Your task to perform on an android device: Go to eBay Image 0: 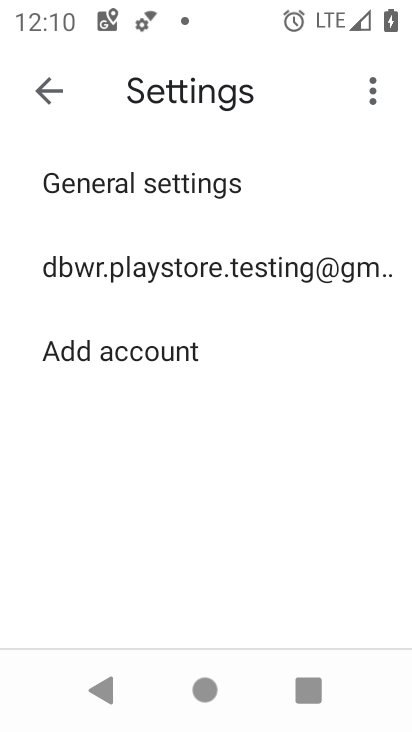
Step 0: press home button
Your task to perform on an android device: Go to eBay Image 1: 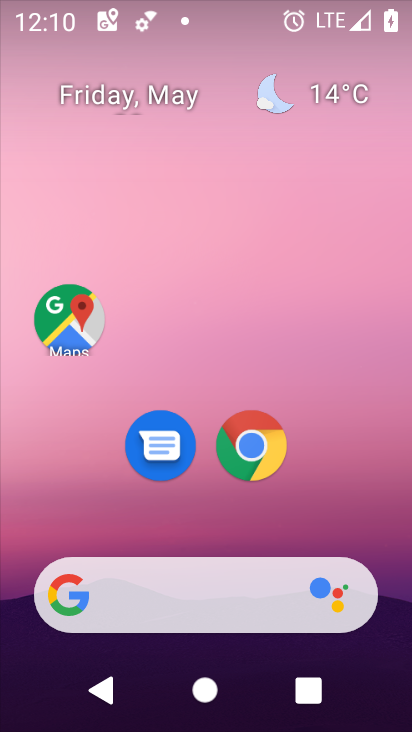
Step 1: drag from (247, 520) to (227, 152)
Your task to perform on an android device: Go to eBay Image 2: 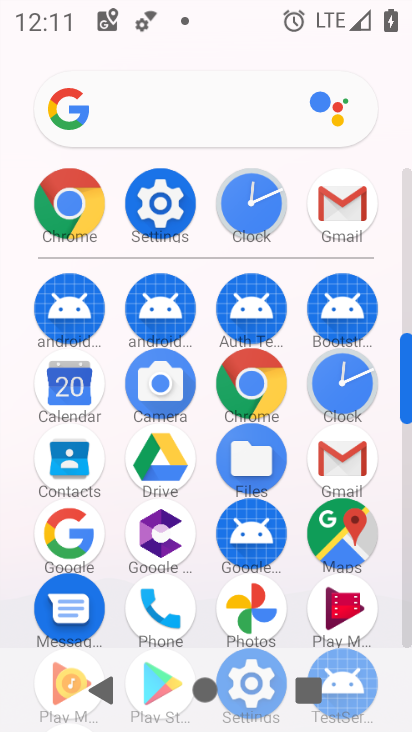
Step 2: click (84, 224)
Your task to perform on an android device: Go to eBay Image 3: 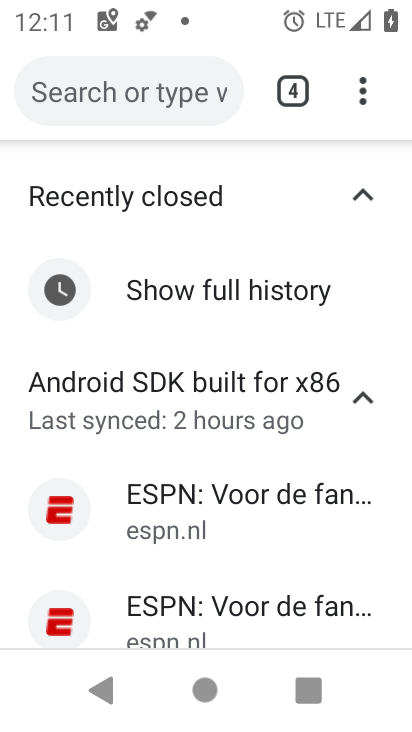
Step 3: click (293, 97)
Your task to perform on an android device: Go to eBay Image 4: 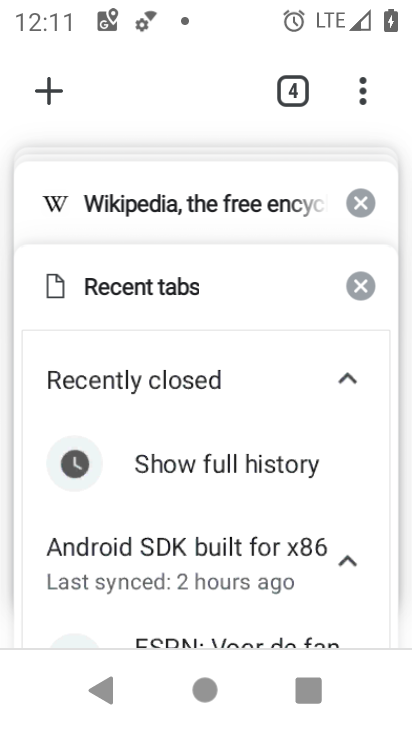
Step 4: drag from (137, 206) to (221, 615)
Your task to perform on an android device: Go to eBay Image 5: 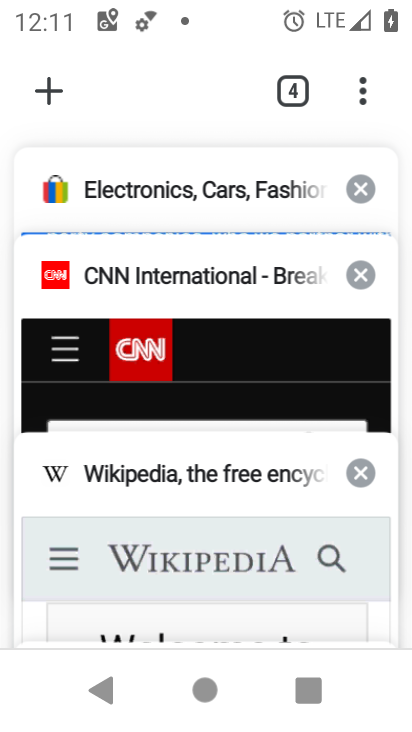
Step 5: drag from (190, 225) to (209, 573)
Your task to perform on an android device: Go to eBay Image 6: 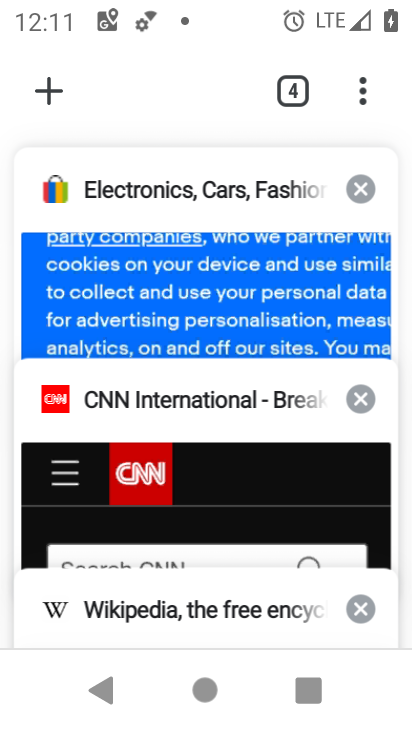
Step 6: click (221, 230)
Your task to perform on an android device: Go to eBay Image 7: 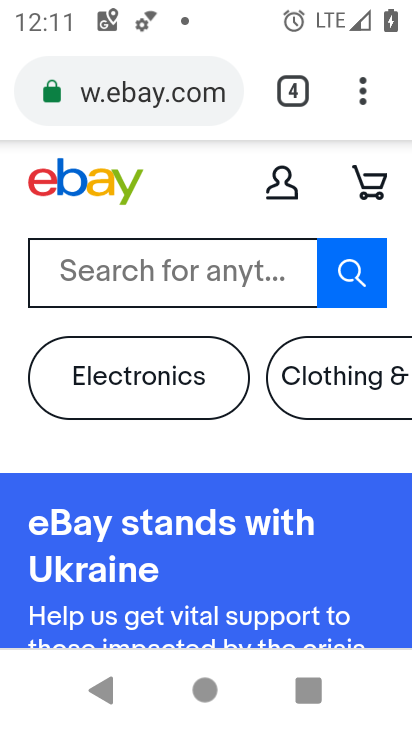
Step 7: task complete